Your task to perform on an android device: search for starred emails in the gmail app Image 0: 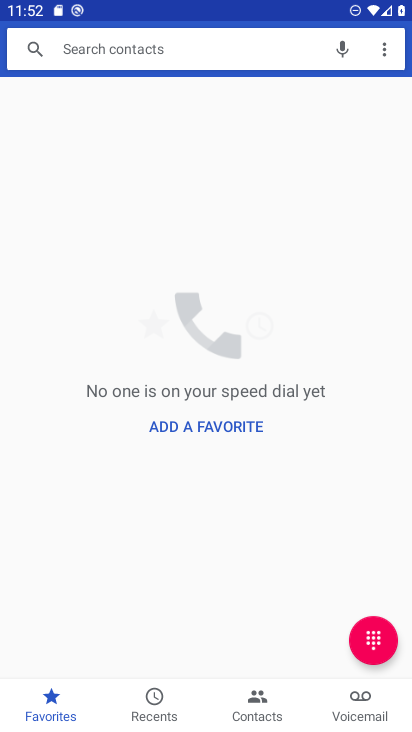
Step 0: press home button
Your task to perform on an android device: search for starred emails in the gmail app Image 1: 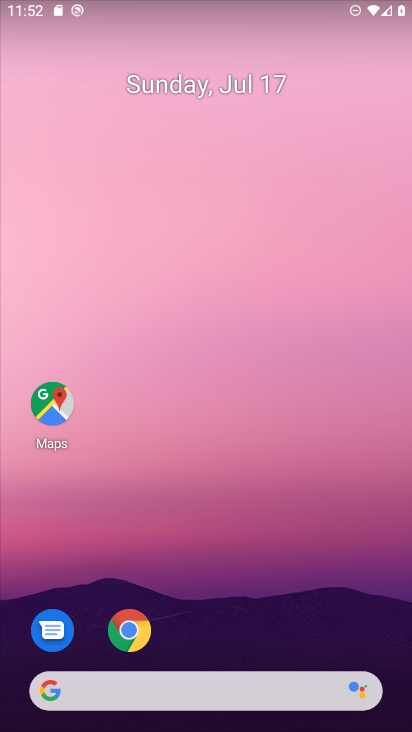
Step 1: drag from (203, 597) to (185, 40)
Your task to perform on an android device: search for starred emails in the gmail app Image 2: 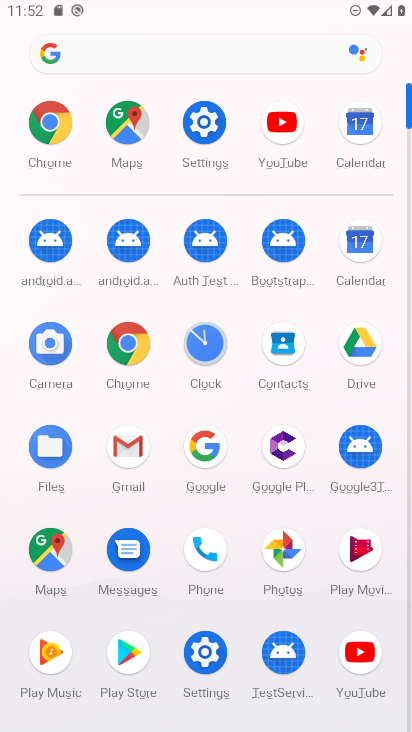
Step 2: click (130, 451)
Your task to perform on an android device: search for starred emails in the gmail app Image 3: 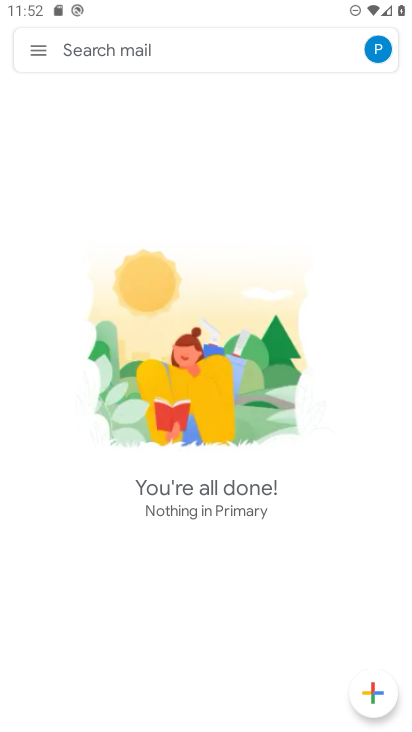
Step 3: click (36, 48)
Your task to perform on an android device: search for starred emails in the gmail app Image 4: 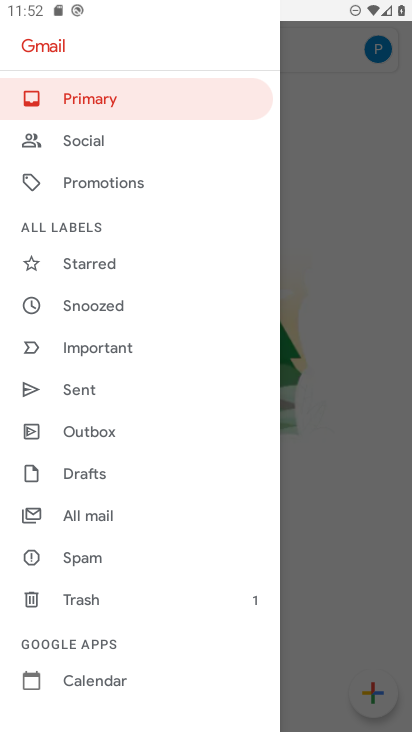
Step 4: click (94, 258)
Your task to perform on an android device: search for starred emails in the gmail app Image 5: 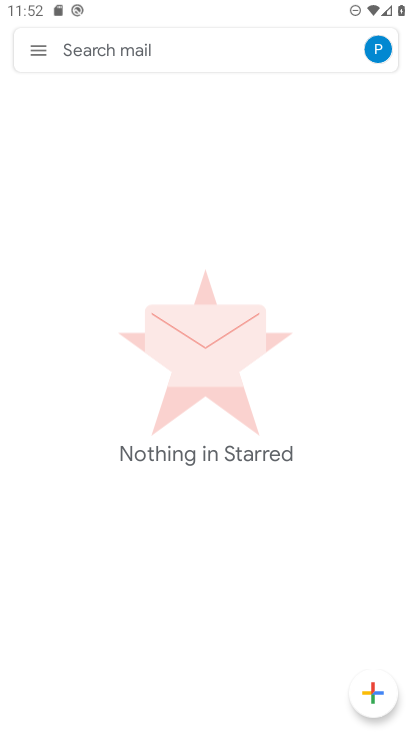
Step 5: task complete